Your task to perform on an android device: Go to Wikipedia Image 0: 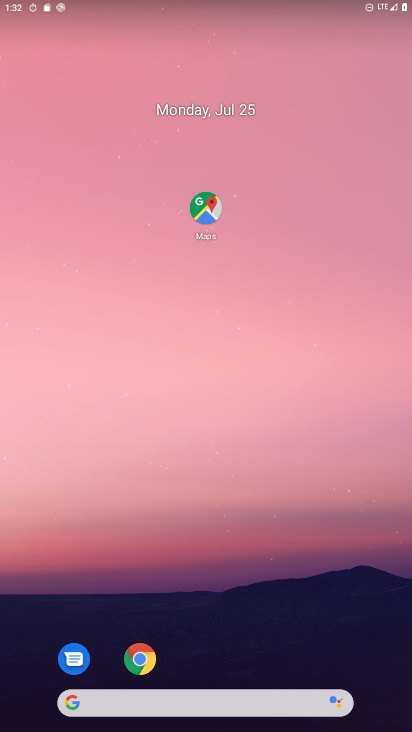
Step 0: drag from (219, 243) to (260, 168)
Your task to perform on an android device: Go to Wikipedia Image 1: 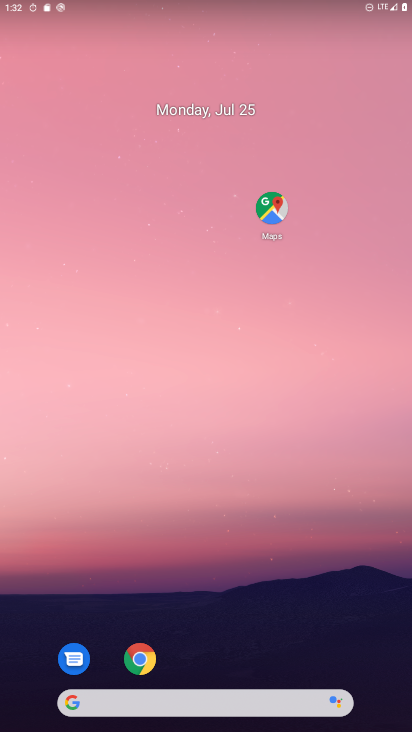
Step 1: click (263, 50)
Your task to perform on an android device: Go to Wikipedia Image 2: 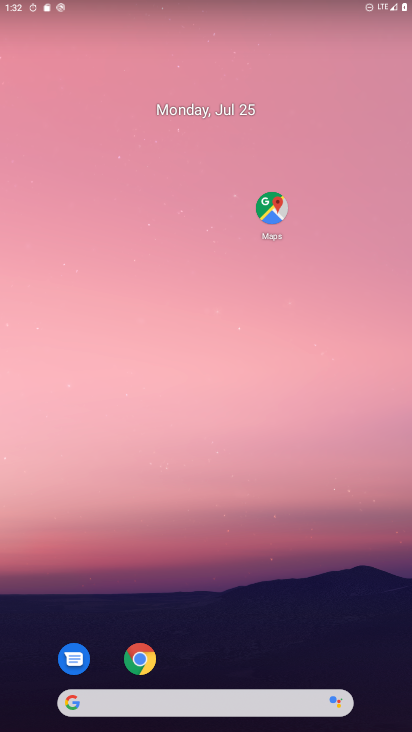
Step 2: click (109, 705)
Your task to perform on an android device: Go to Wikipedia Image 3: 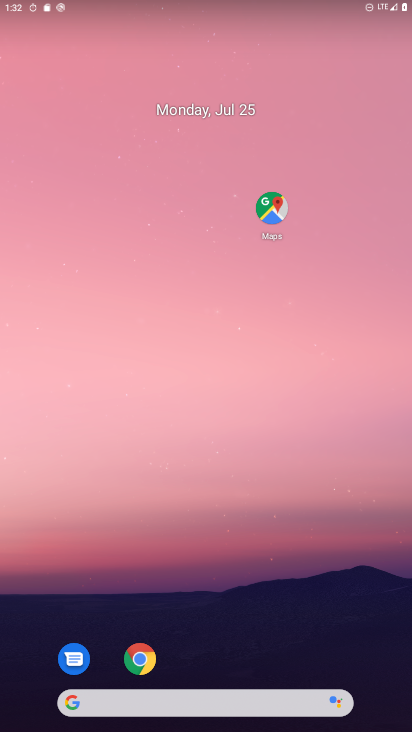
Step 3: click (107, 708)
Your task to perform on an android device: Go to Wikipedia Image 4: 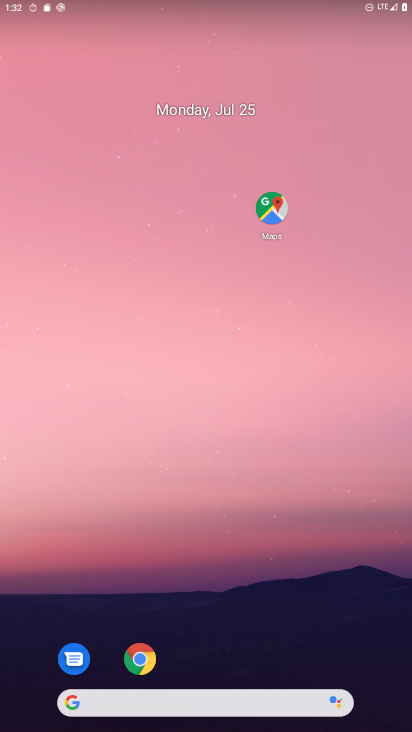
Step 4: click (108, 694)
Your task to perform on an android device: Go to Wikipedia Image 5: 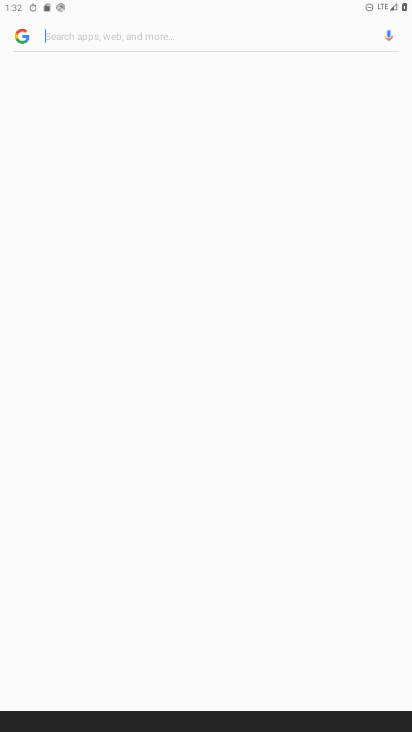
Step 5: click (105, 698)
Your task to perform on an android device: Go to Wikipedia Image 6: 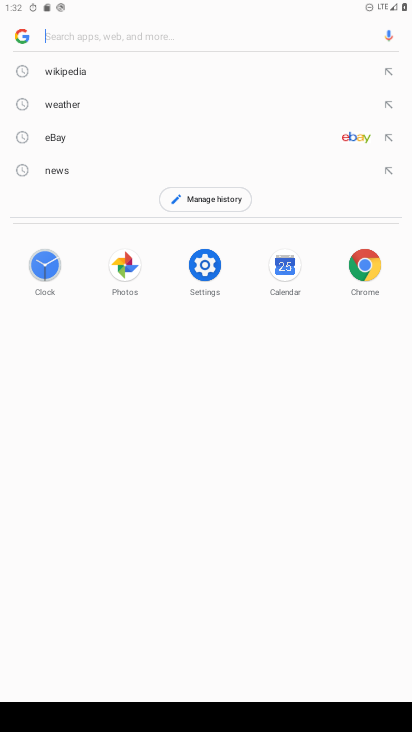
Step 6: click (70, 75)
Your task to perform on an android device: Go to Wikipedia Image 7: 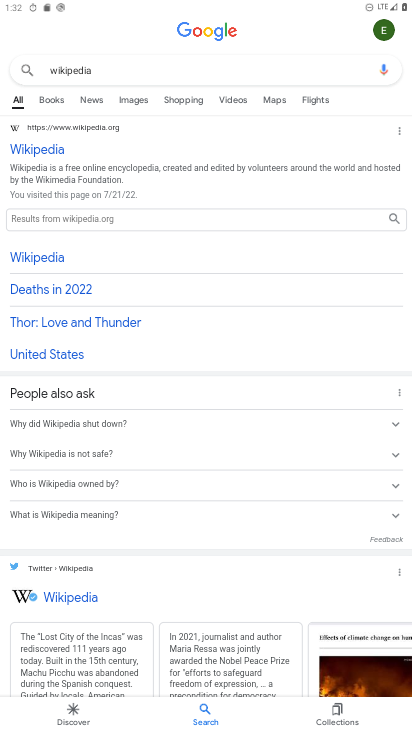
Step 7: task complete